Your task to perform on an android device: turn on the 24-hour format for clock Image 0: 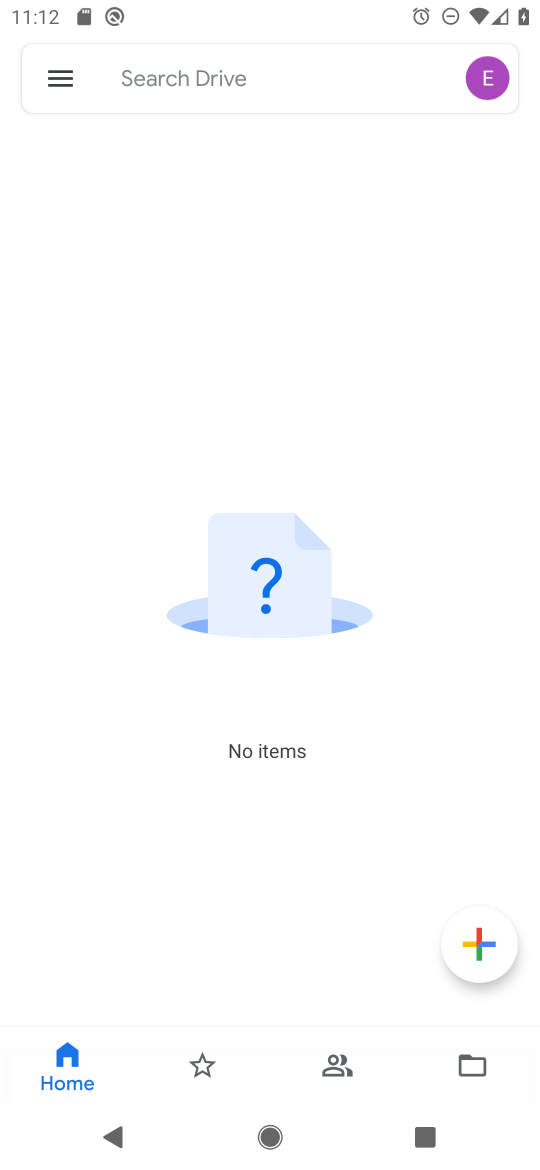
Step 0: press home button
Your task to perform on an android device: turn on the 24-hour format for clock Image 1: 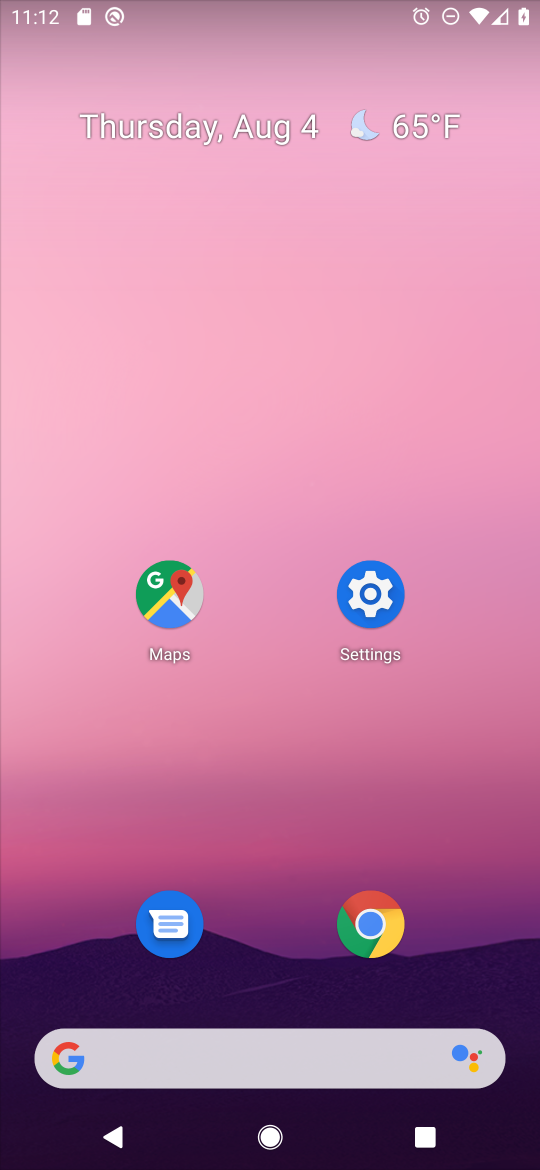
Step 1: drag from (239, 1062) to (427, 57)
Your task to perform on an android device: turn on the 24-hour format for clock Image 2: 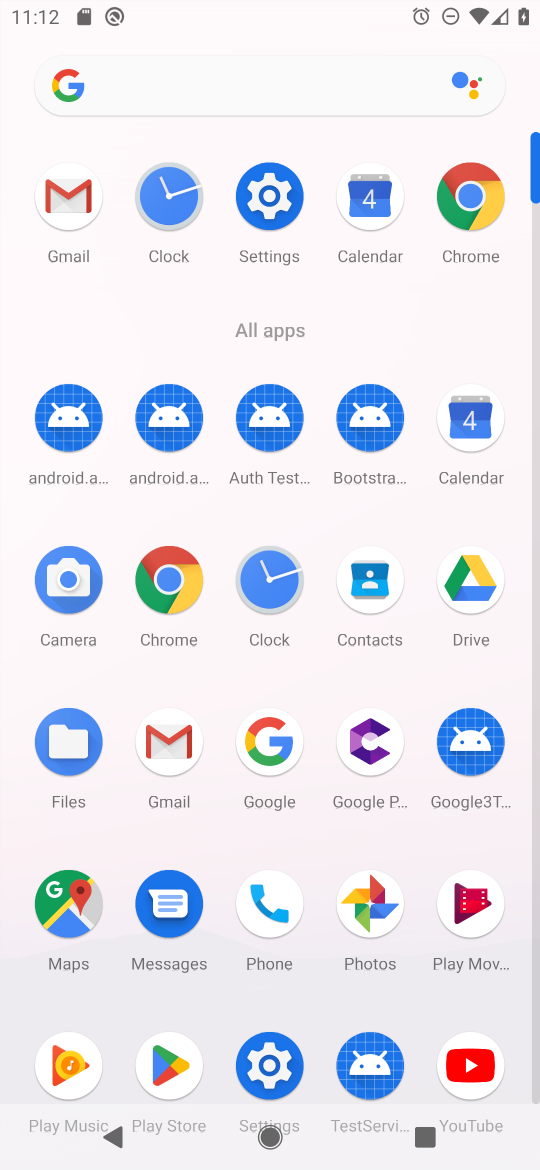
Step 2: click (158, 207)
Your task to perform on an android device: turn on the 24-hour format for clock Image 3: 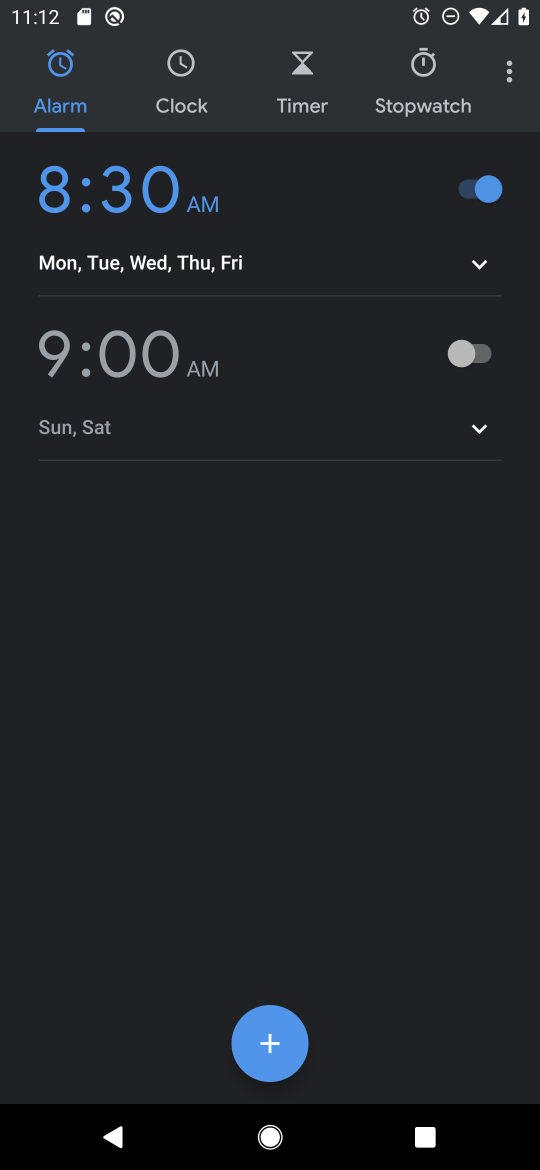
Step 3: click (509, 63)
Your task to perform on an android device: turn on the 24-hour format for clock Image 4: 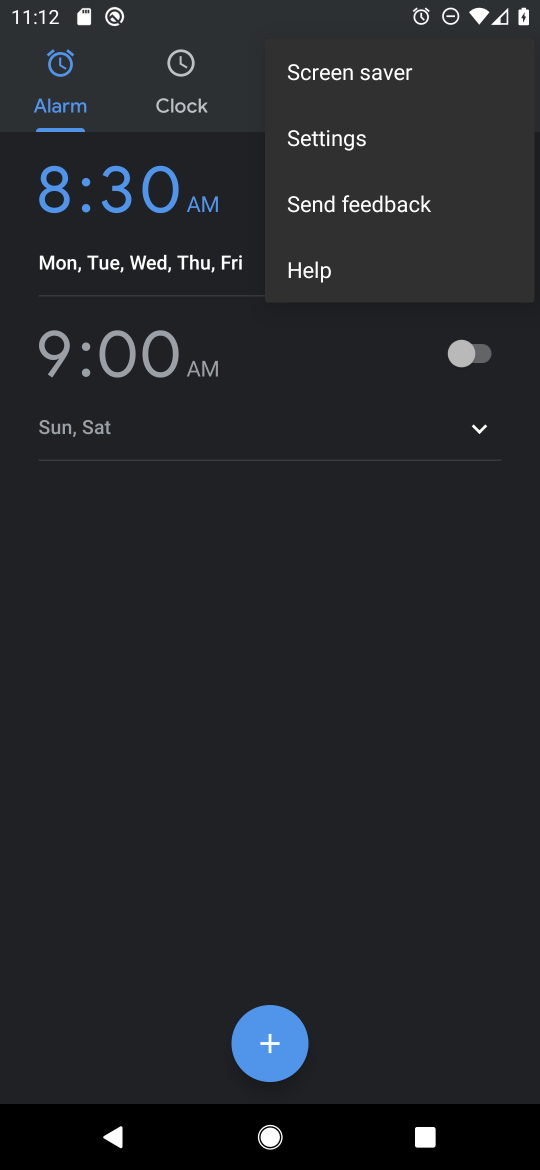
Step 4: click (340, 145)
Your task to perform on an android device: turn on the 24-hour format for clock Image 5: 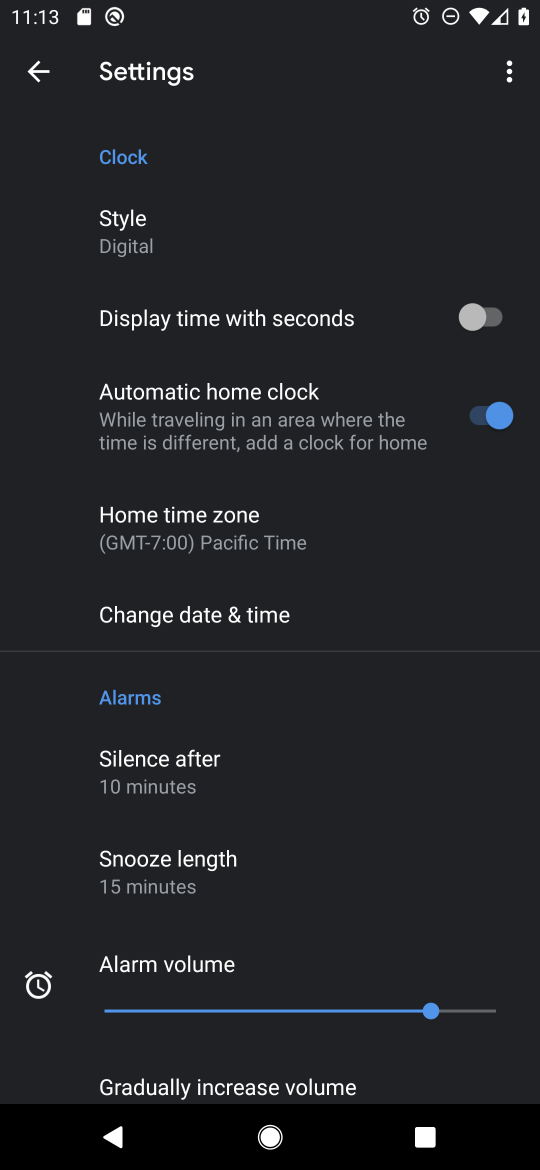
Step 5: click (247, 611)
Your task to perform on an android device: turn on the 24-hour format for clock Image 6: 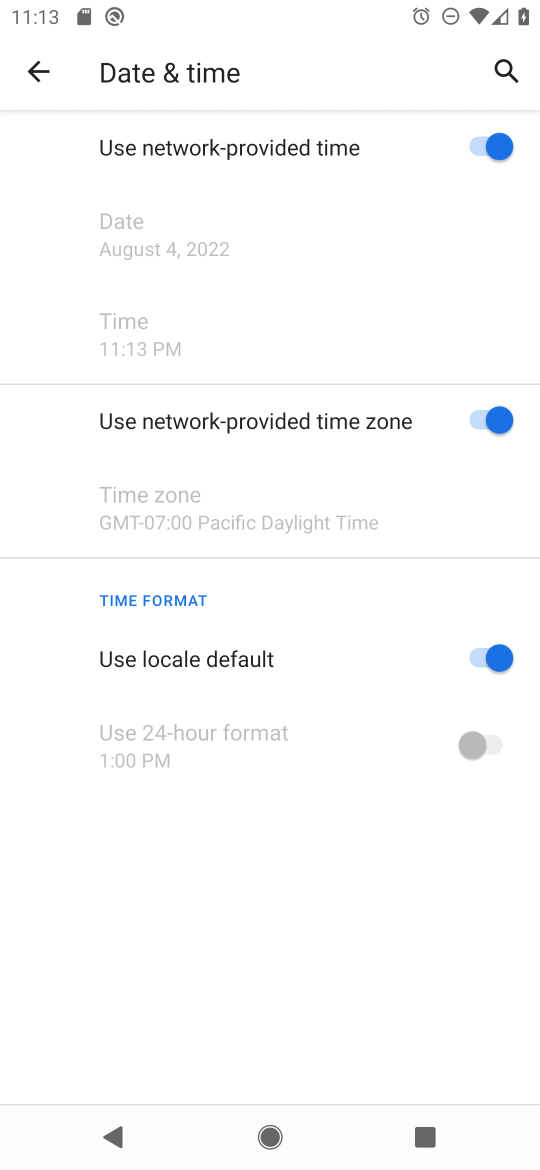
Step 6: click (482, 654)
Your task to perform on an android device: turn on the 24-hour format for clock Image 7: 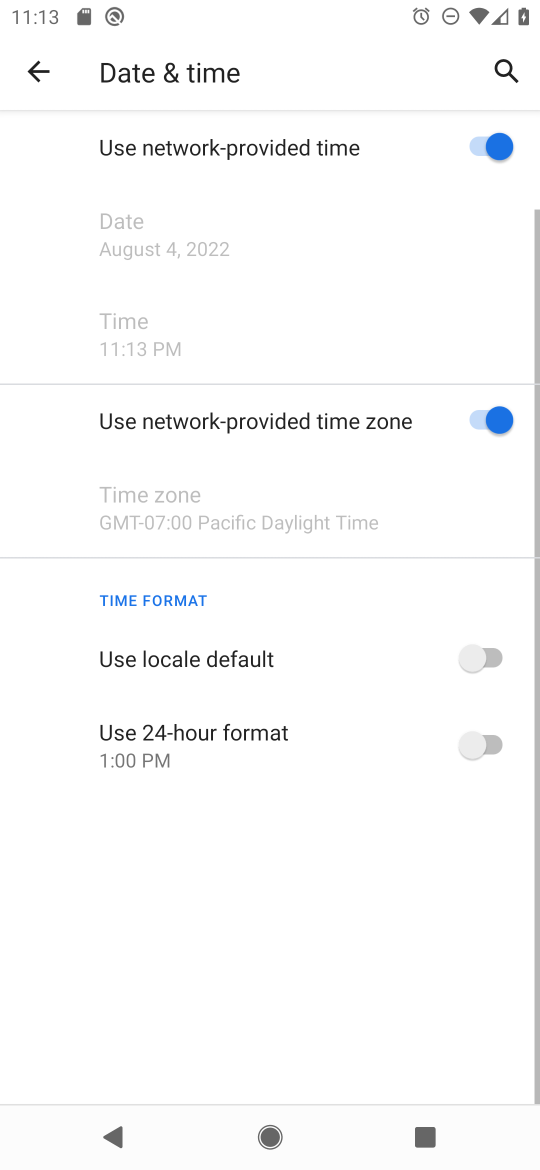
Step 7: click (486, 739)
Your task to perform on an android device: turn on the 24-hour format for clock Image 8: 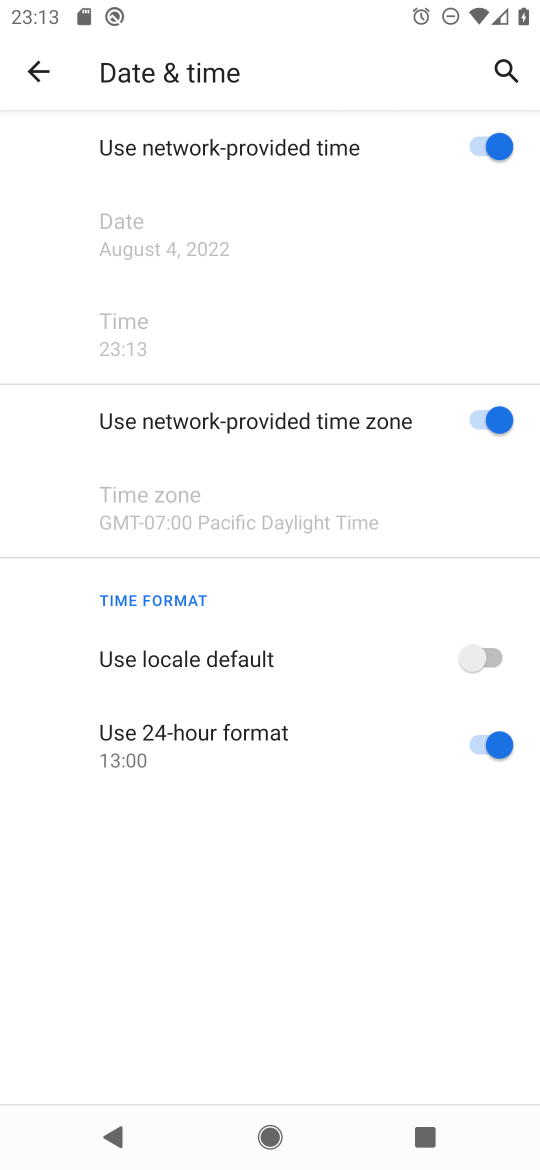
Step 8: task complete